Your task to perform on an android device: View the shopping cart on newegg.com. Search for "logitech g910" on newegg.com, select the first entry, add it to the cart, then select checkout. Image 0: 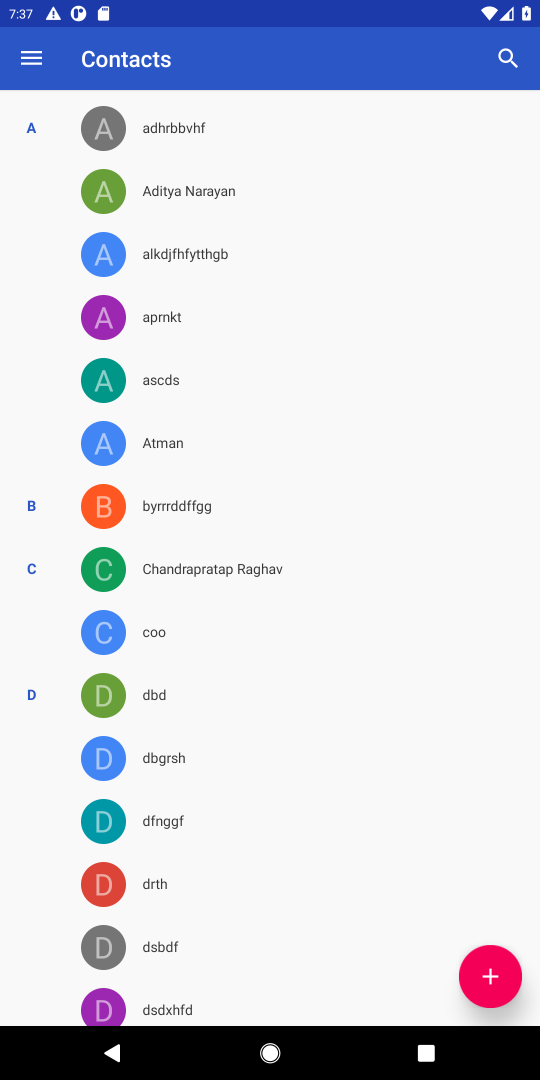
Step 0: press home button
Your task to perform on an android device: View the shopping cart on newegg.com. Search for "logitech g910" on newegg.com, select the first entry, add it to the cart, then select checkout. Image 1: 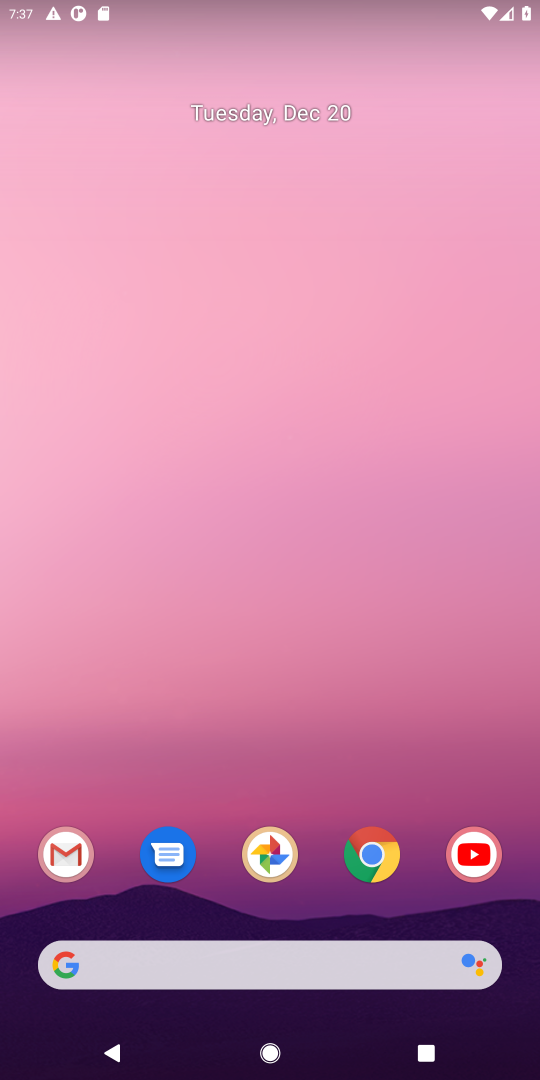
Step 1: click (378, 853)
Your task to perform on an android device: View the shopping cart on newegg.com. Search for "logitech g910" on newegg.com, select the first entry, add it to the cart, then select checkout. Image 2: 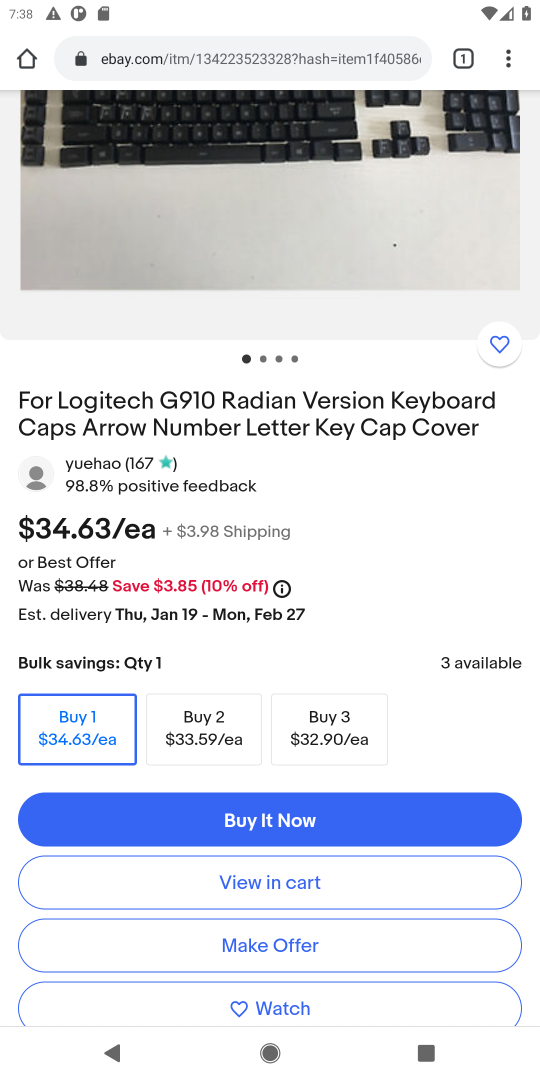
Step 2: click (188, 55)
Your task to perform on an android device: View the shopping cart on newegg.com. Search for "logitech g910" on newegg.com, select the first entry, add it to the cart, then select checkout. Image 3: 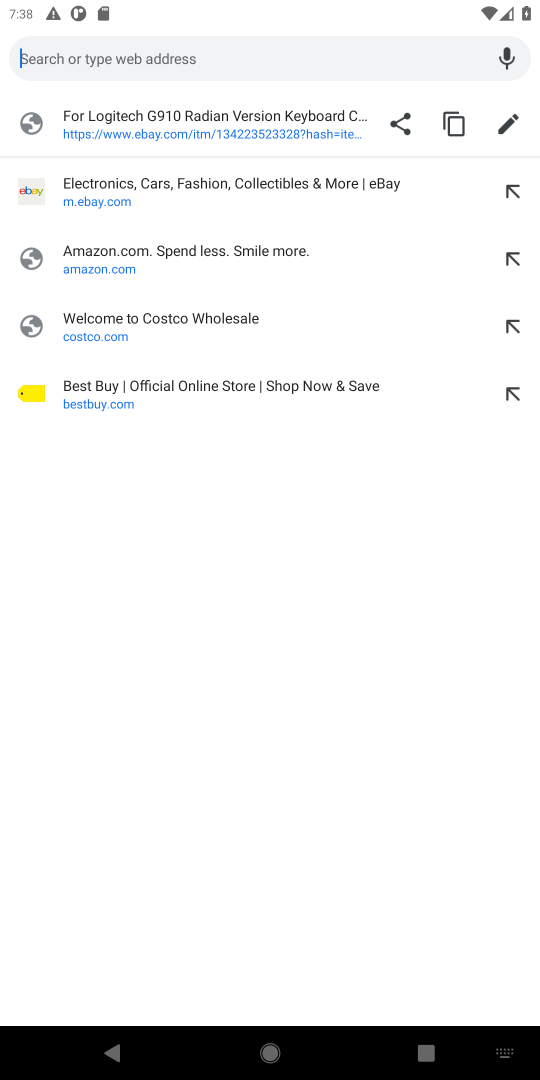
Step 3: type "newegg.com"
Your task to perform on an android device: View the shopping cart on newegg.com. Search for "logitech g910" on newegg.com, select the first entry, add it to the cart, then select checkout. Image 4: 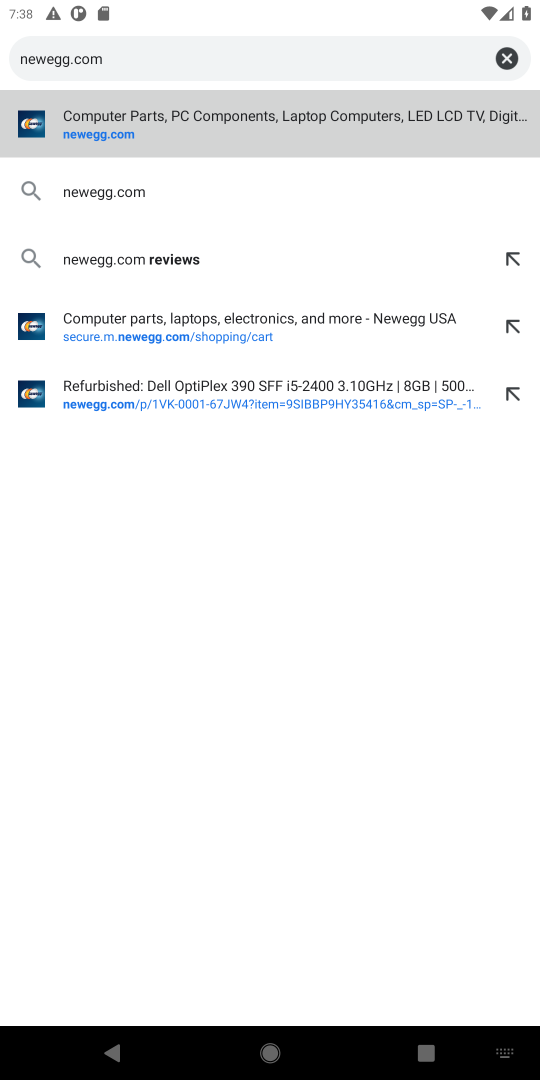
Step 4: click (107, 137)
Your task to perform on an android device: View the shopping cart on newegg.com. Search for "logitech g910" on newegg.com, select the first entry, add it to the cart, then select checkout. Image 5: 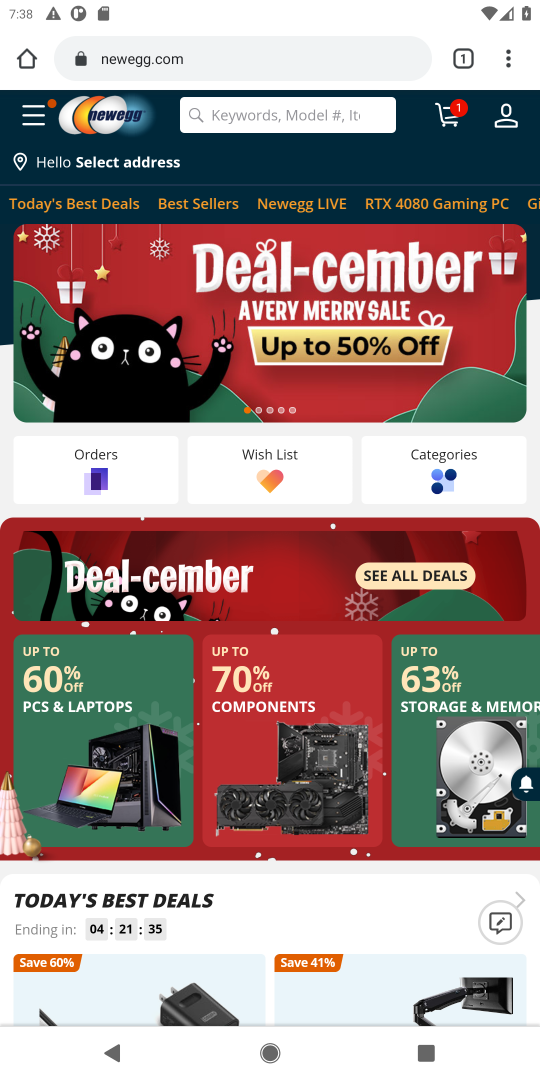
Step 5: click (458, 129)
Your task to perform on an android device: View the shopping cart on newegg.com. Search for "logitech g910" on newegg.com, select the first entry, add it to the cart, then select checkout. Image 6: 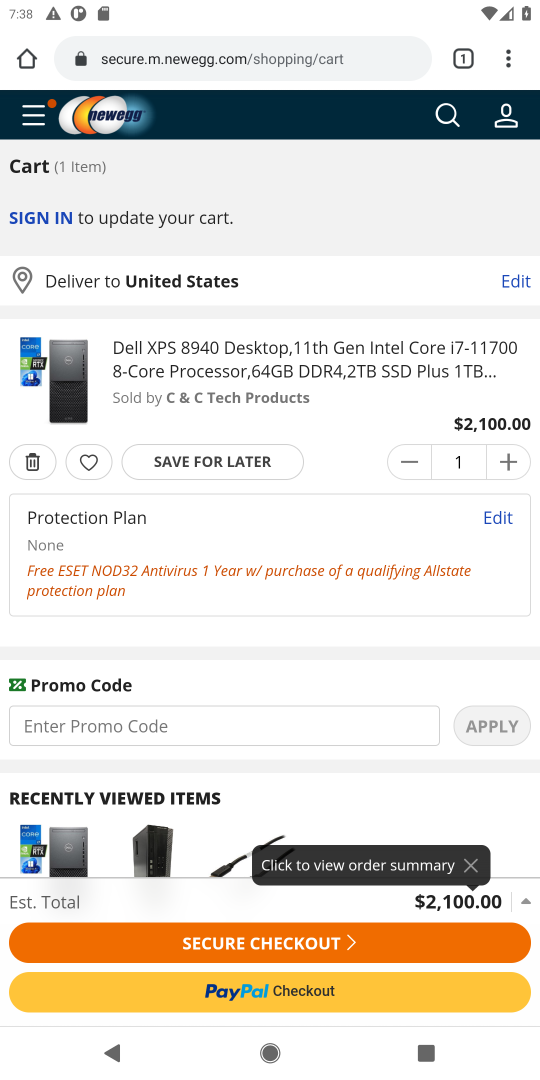
Step 6: click (441, 124)
Your task to perform on an android device: View the shopping cart on newegg.com. Search for "logitech g910" on newegg.com, select the first entry, add it to the cart, then select checkout. Image 7: 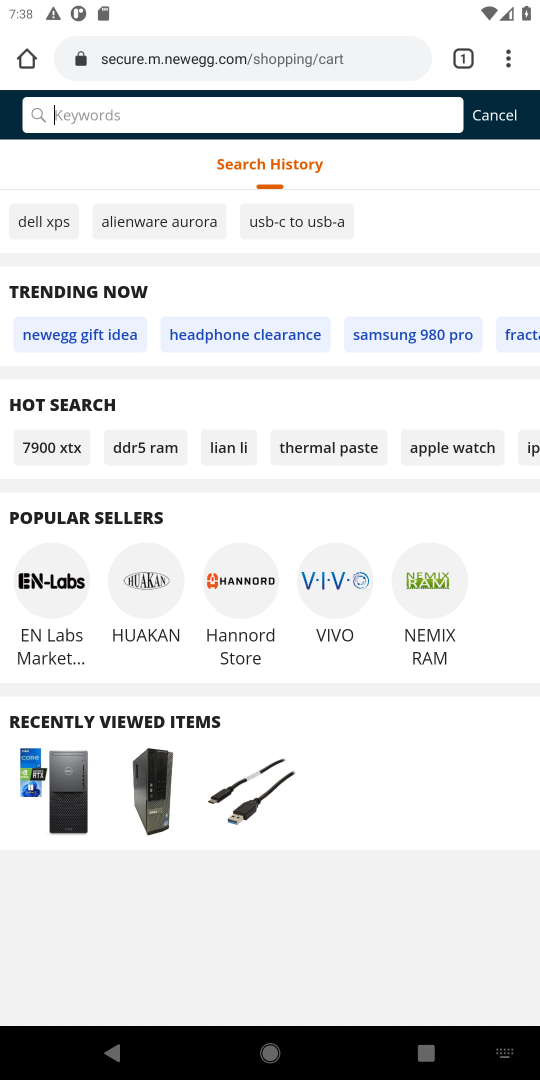
Step 7: type "logitech g910"
Your task to perform on an android device: View the shopping cart on newegg.com. Search for "logitech g910" on newegg.com, select the first entry, add it to the cart, then select checkout. Image 8: 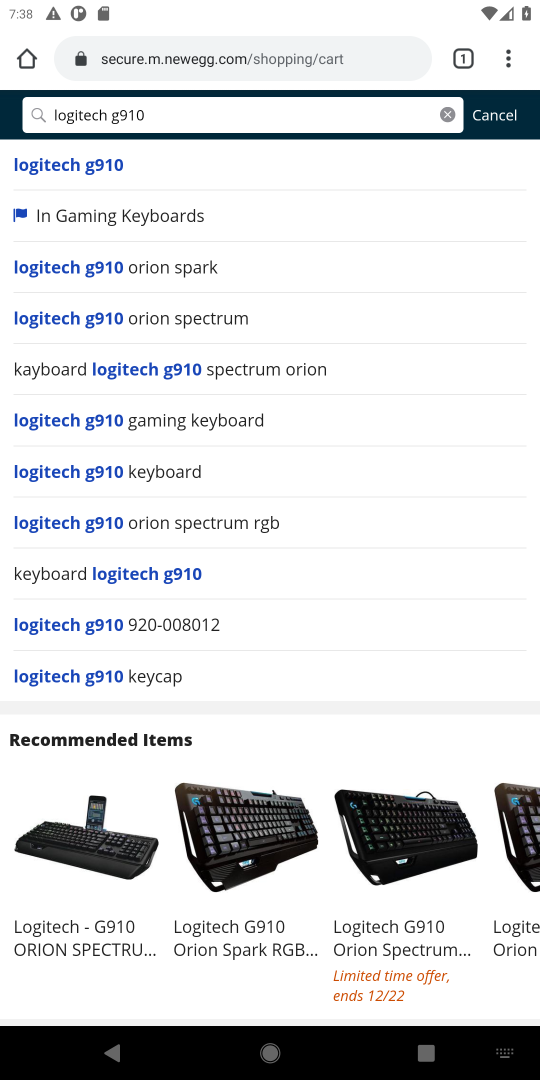
Step 8: click (88, 177)
Your task to perform on an android device: View the shopping cart on newegg.com. Search for "logitech g910" on newegg.com, select the first entry, add it to the cart, then select checkout. Image 9: 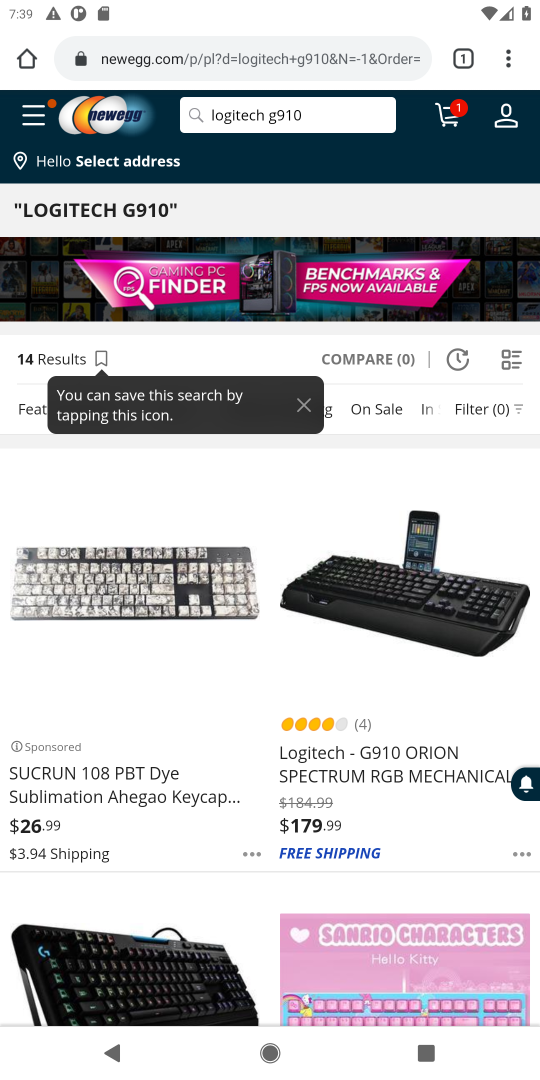
Step 9: task complete